Your task to perform on an android device: Go to CNN.com Image 0: 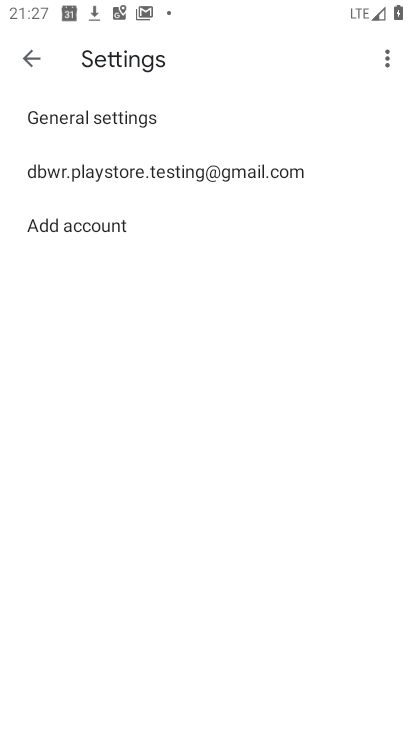
Step 0: press home button
Your task to perform on an android device: Go to CNN.com Image 1: 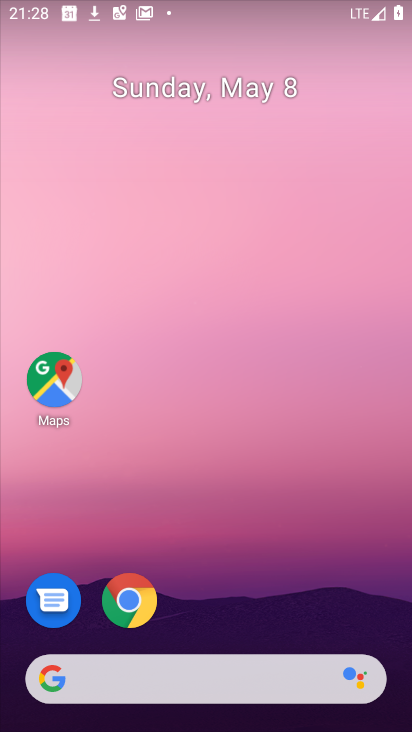
Step 1: drag from (271, 712) to (126, 245)
Your task to perform on an android device: Go to CNN.com Image 2: 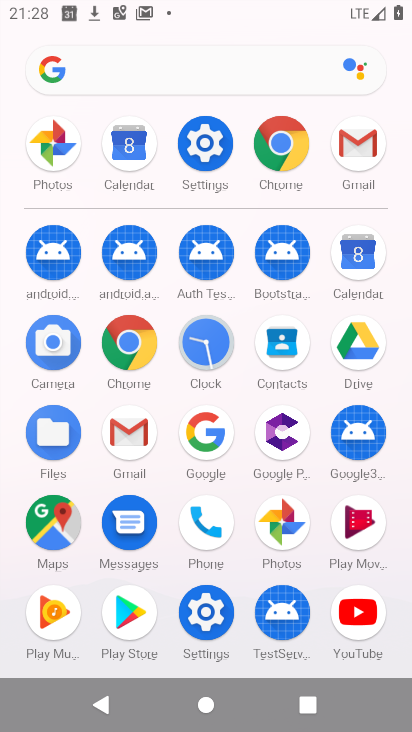
Step 2: click (265, 159)
Your task to perform on an android device: Go to CNN.com Image 3: 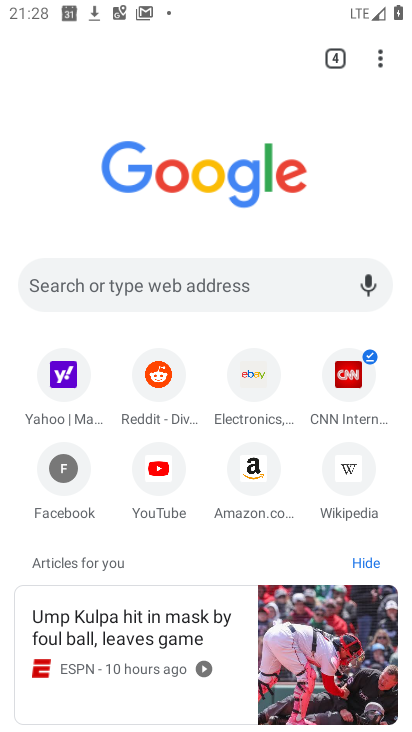
Step 3: click (358, 397)
Your task to perform on an android device: Go to CNN.com Image 4: 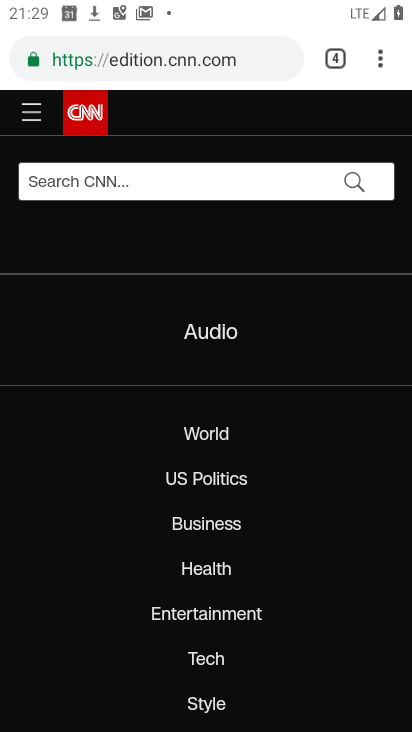
Step 4: task complete